Your task to perform on an android device: Open the web browser Image 0: 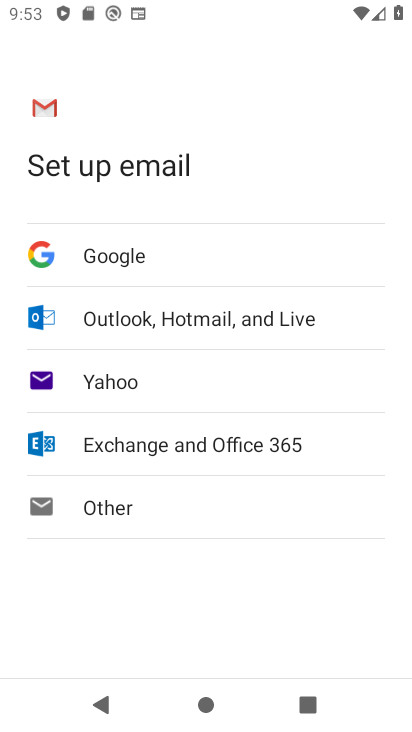
Step 0: press back button
Your task to perform on an android device: Open the web browser Image 1: 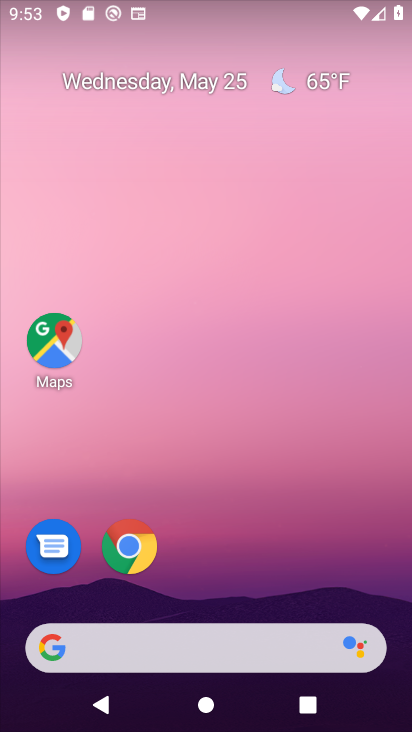
Step 1: drag from (268, 591) to (222, 43)
Your task to perform on an android device: Open the web browser Image 2: 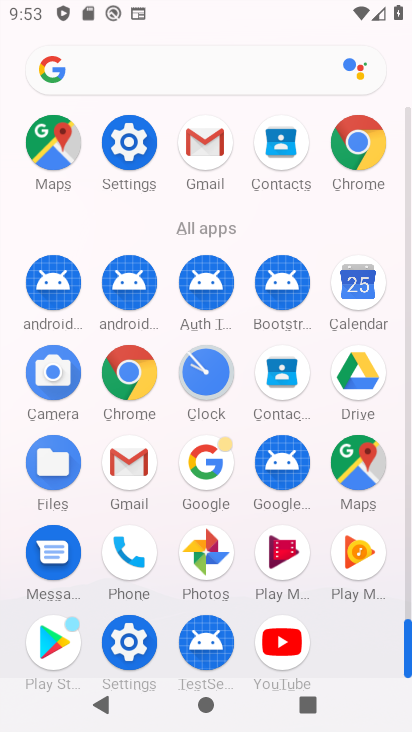
Step 2: drag from (6, 535) to (10, 166)
Your task to perform on an android device: Open the web browser Image 3: 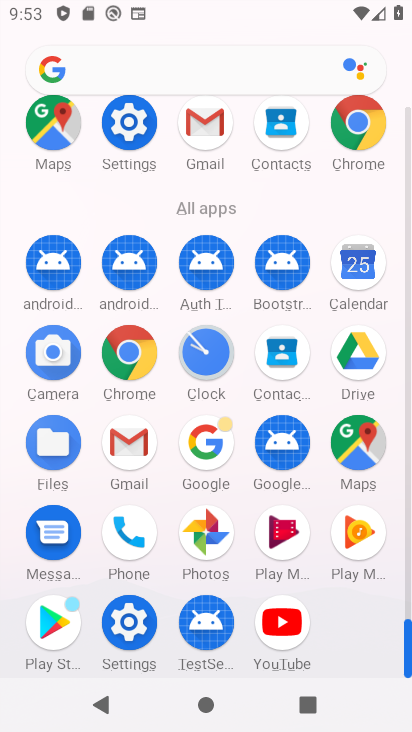
Step 3: click (122, 352)
Your task to perform on an android device: Open the web browser Image 4: 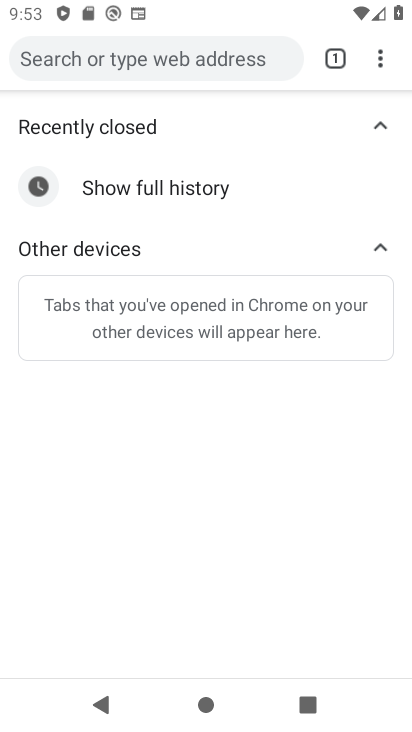
Step 4: task complete